Your task to perform on an android device: find which apps use the phone's location Image 0: 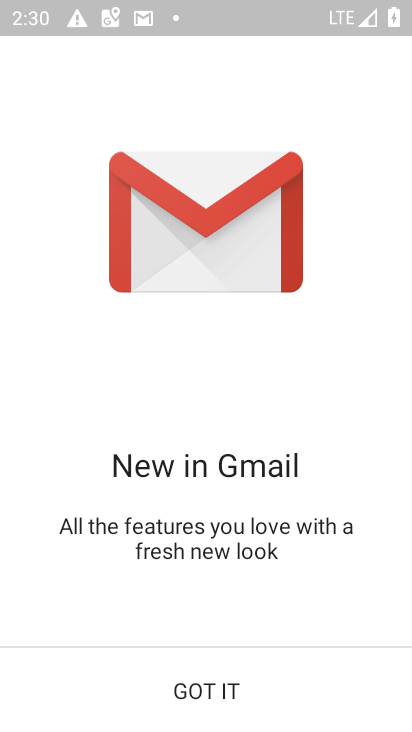
Step 0: press home button
Your task to perform on an android device: find which apps use the phone's location Image 1: 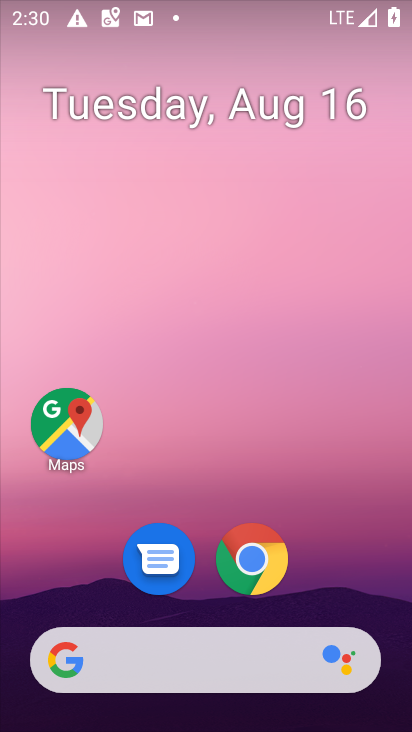
Step 1: drag from (379, 590) to (331, 212)
Your task to perform on an android device: find which apps use the phone's location Image 2: 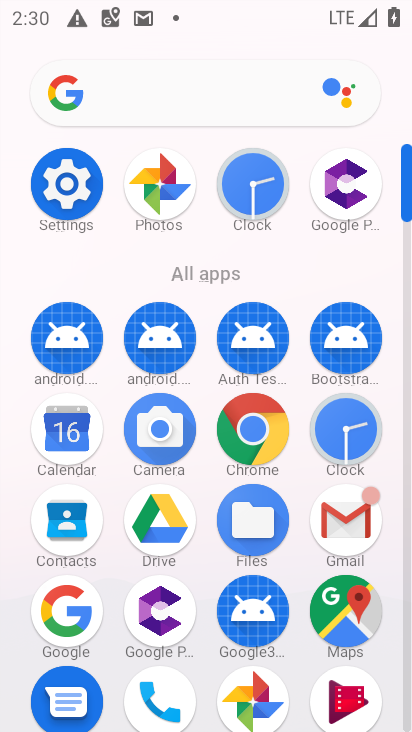
Step 2: click (408, 692)
Your task to perform on an android device: find which apps use the phone's location Image 3: 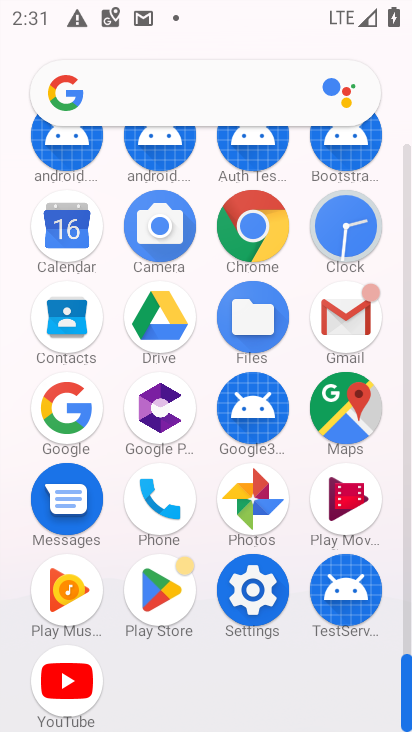
Step 3: click (252, 596)
Your task to perform on an android device: find which apps use the phone's location Image 4: 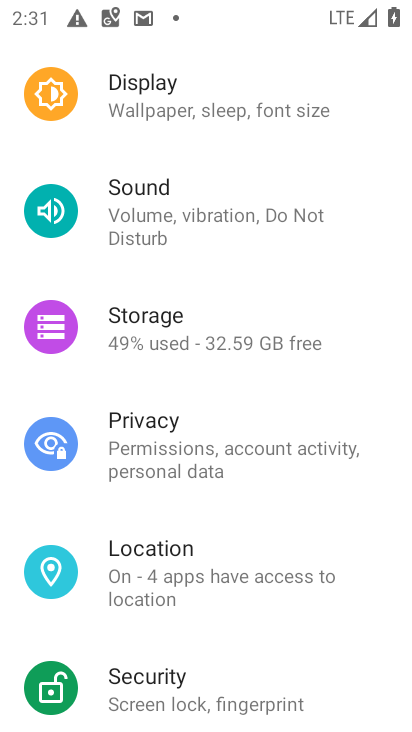
Step 4: click (175, 574)
Your task to perform on an android device: find which apps use the phone's location Image 5: 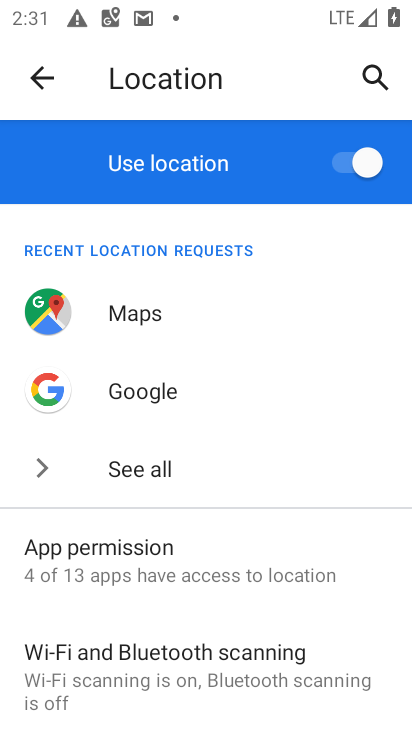
Step 5: drag from (266, 591) to (266, 371)
Your task to perform on an android device: find which apps use the phone's location Image 6: 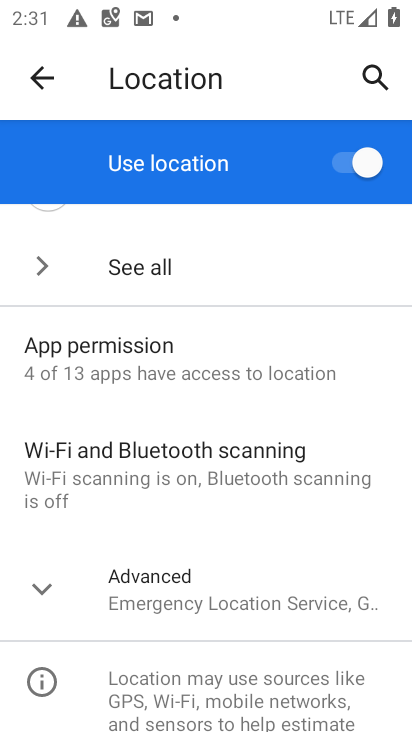
Step 6: click (87, 351)
Your task to perform on an android device: find which apps use the phone's location Image 7: 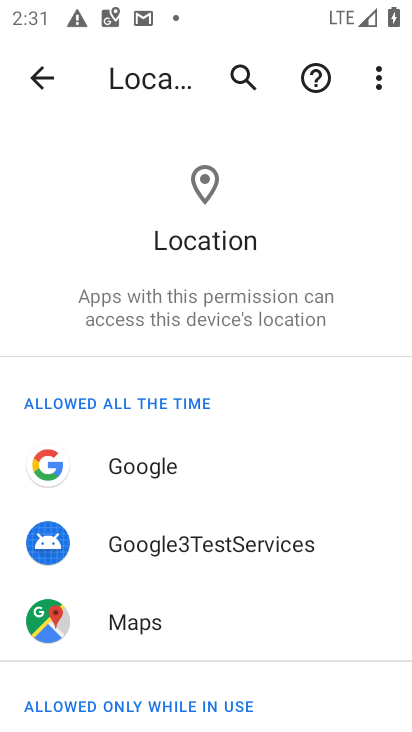
Step 7: task complete